Your task to perform on an android device: Open accessibility settings Image 0: 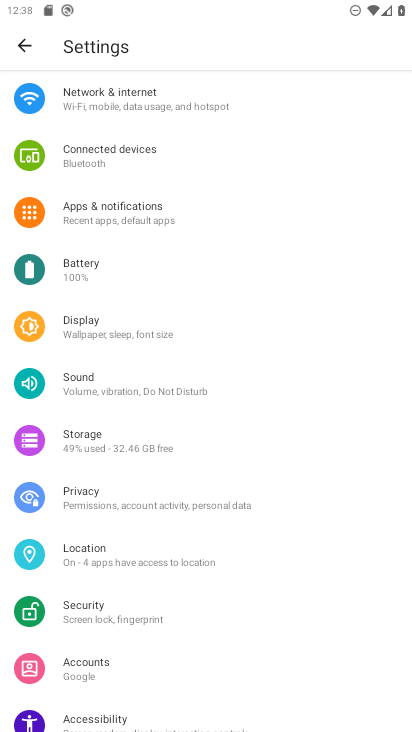
Step 0: drag from (196, 609) to (264, 331)
Your task to perform on an android device: Open accessibility settings Image 1: 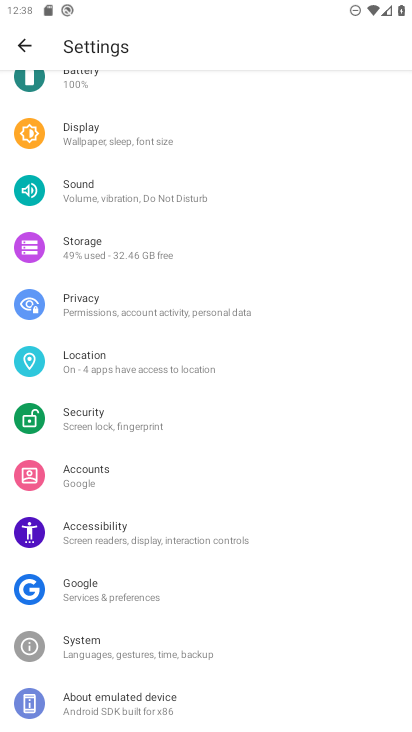
Step 1: click (150, 521)
Your task to perform on an android device: Open accessibility settings Image 2: 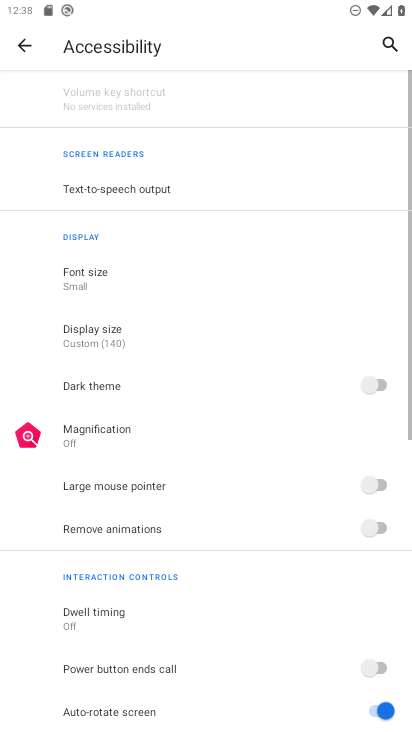
Step 2: task complete